Your task to perform on an android device: open chrome and create a bookmark for the current page Image 0: 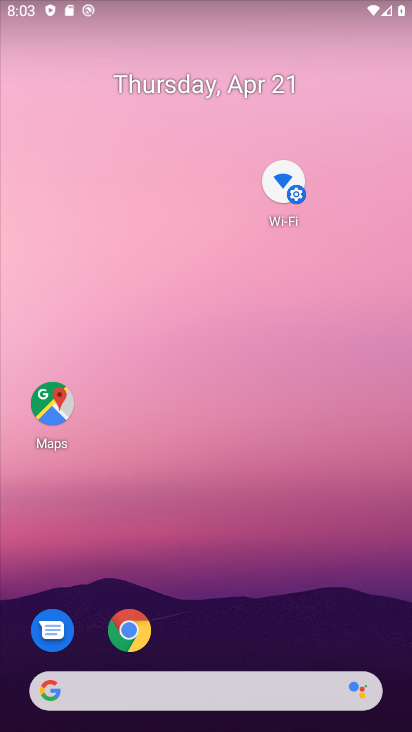
Step 0: click (130, 637)
Your task to perform on an android device: open chrome and create a bookmark for the current page Image 1: 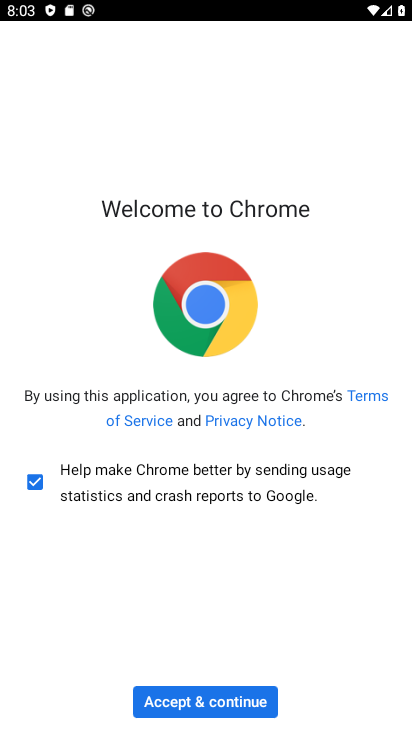
Step 1: click (216, 696)
Your task to perform on an android device: open chrome and create a bookmark for the current page Image 2: 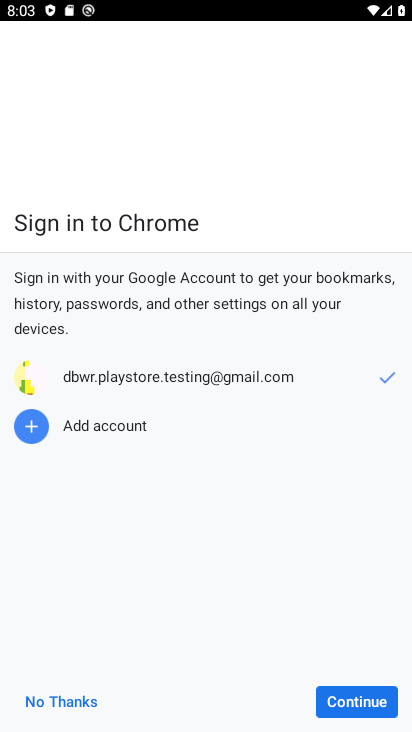
Step 2: click (378, 694)
Your task to perform on an android device: open chrome and create a bookmark for the current page Image 3: 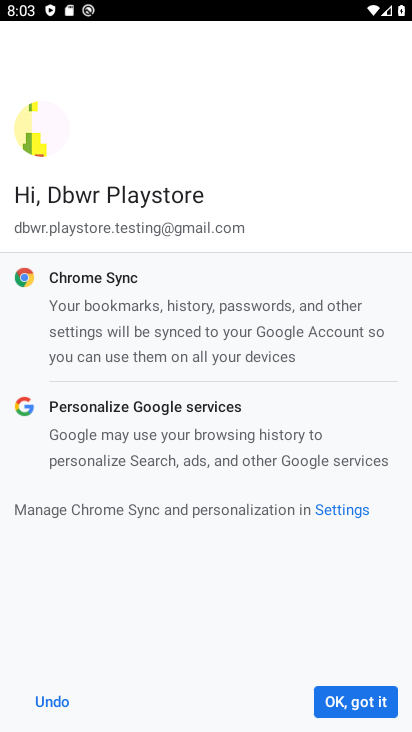
Step 3: click (378, 694)
Your task to perform on an android device: open chrome and create a bookmark for the current page Image 4: 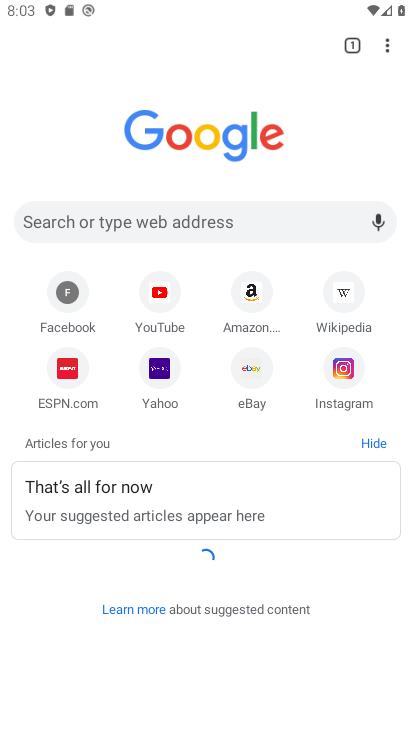
Step 4: click (388, 45)
Your task to perform on an android device: open chrome and create a bookmark for the current page Image 5: 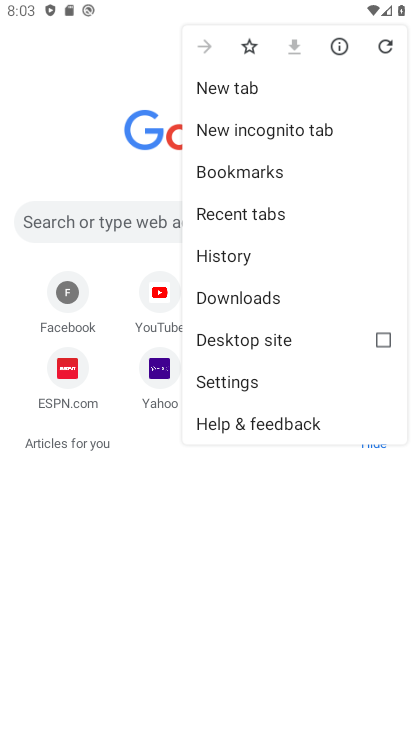
Step 5: click (251, 43)
Your task to perform on an android device: open chrome and create a bookmark for the current page Image 6: 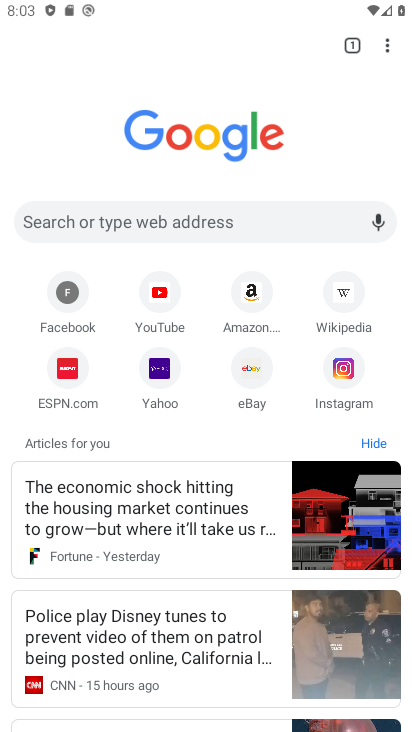
Step 6: task complete